Your task to perform on an android device: Go to display settings Image 0: 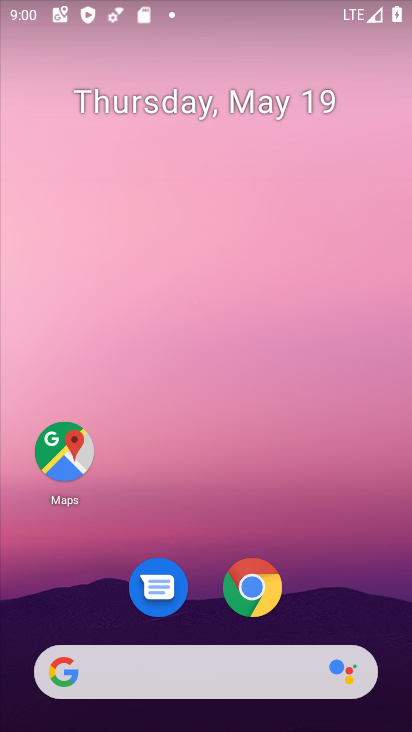
Step 0: drag from (328, 573) to (247, 5)
Your task to perform on an android device: Go to display settings Image 1: 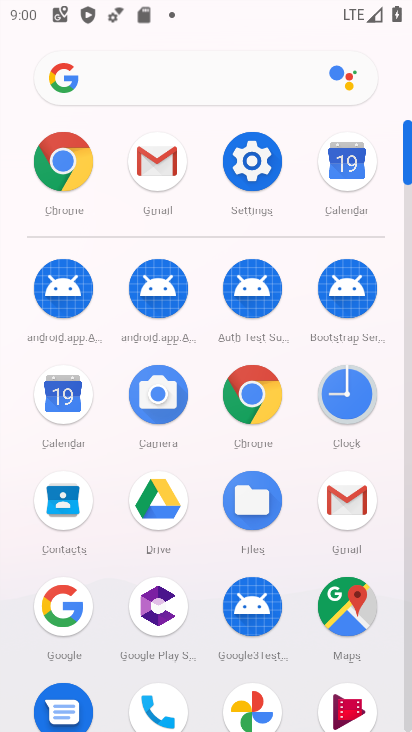
Step 1: drag from (0, 640) to (35, 191)
Your task to perform on an android device: Go to display settings Image 2: 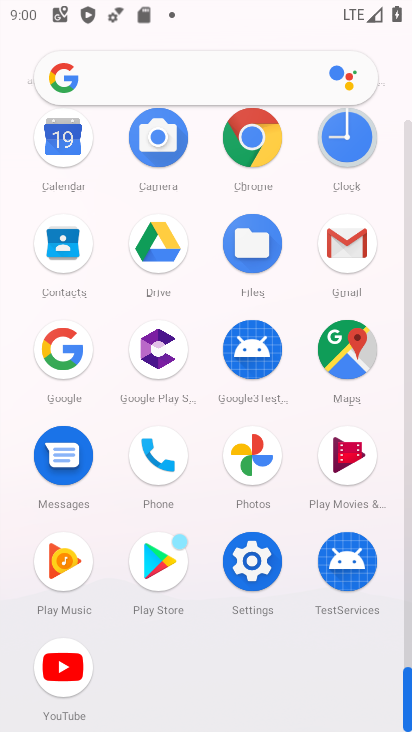
Step 2: click (250, 562)
Your task to perform on an android device: Go to display settings Image 3: 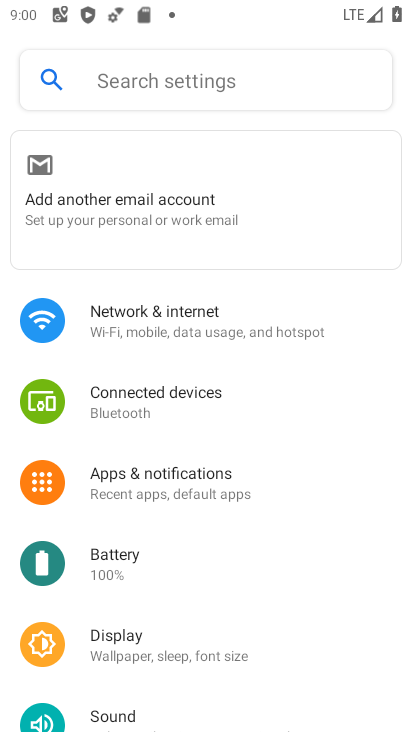
Step 3: drag from (261, 685) to (273, 309)
Your task to perform on an android device: Go to display settings Image 4: 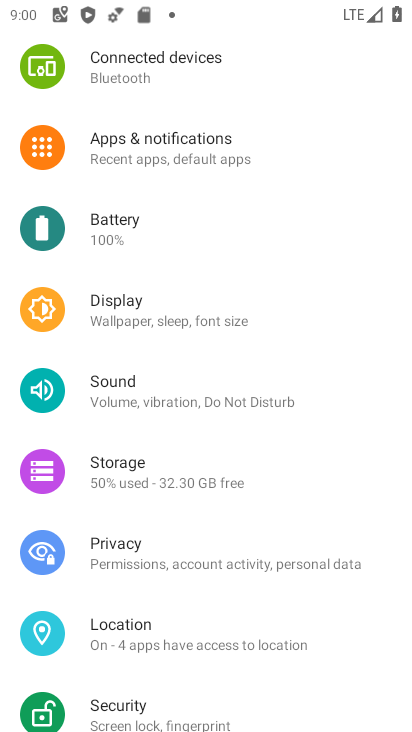
Step 4: click (131, 308)
Your task to perform on an android device: Go to display settings Image 5: 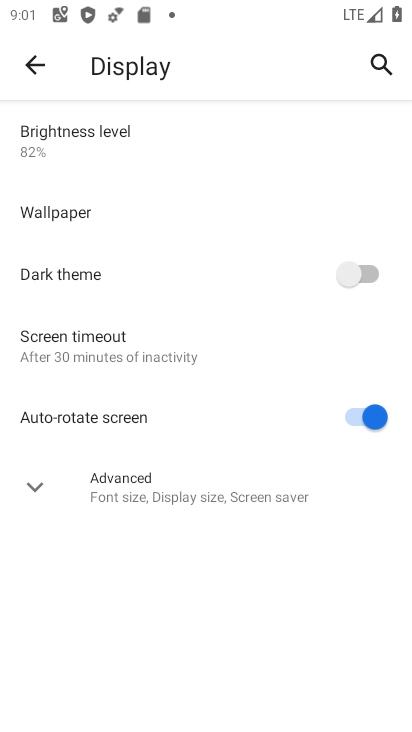
Step 5: click (32, 485)
Your task to perform on an android device: Go to display settings Image 6: 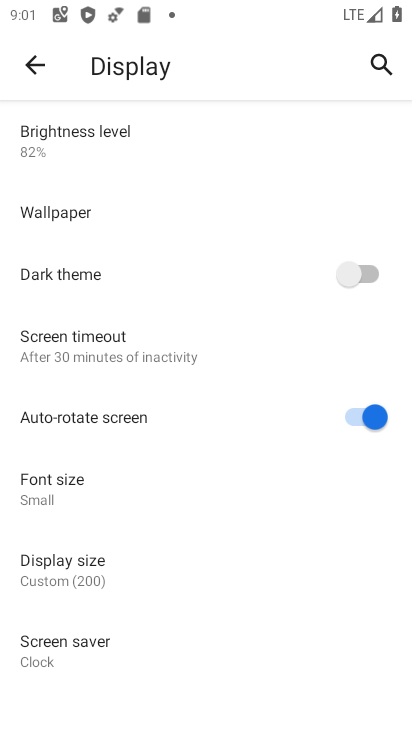
Step 6: task complete